Your task to perform on an android device: check data usage Image 0: 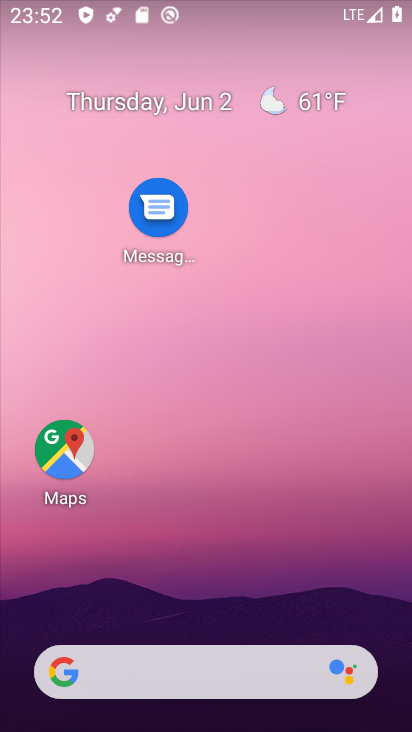
Step 0: drag from (201, 636) to (232, 10)
Your task to perform on an android device: check data usage Image 1: 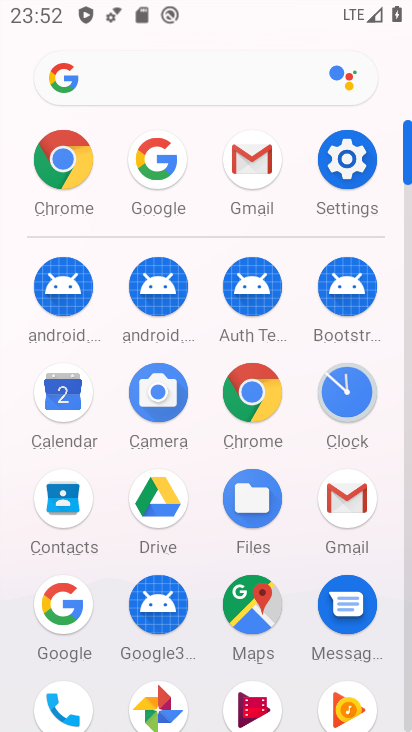
Step 1: click (336, 154)
Your task to perform on an android device: check data usage Image 2: 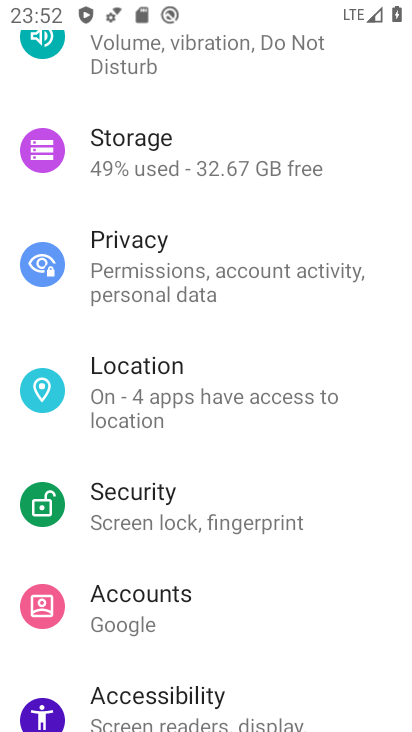
Step 2: drag from (259, 140) to (176, 692)
Your task to perform on an android device: check data usage Image 3: 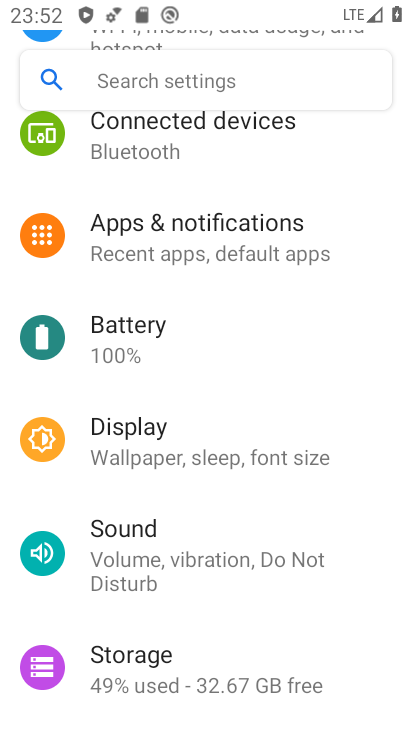
Step 3: drag from (200, 164) to (154, 635)
Your task to perform on an android device: check data usage Image 4: 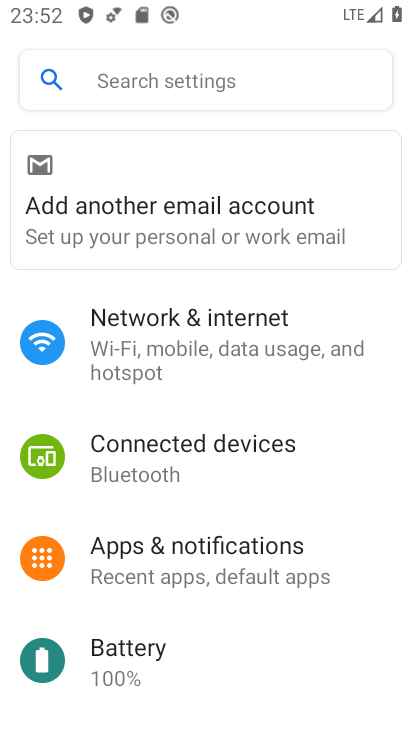
Step 4: click (180, 338)
Your task to perform on an android device: check data usage Image 5: 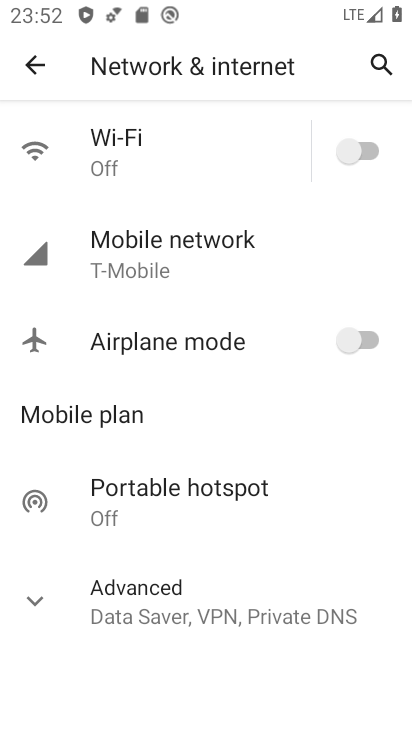
Step 5: click (194, 264)
Your task to perform on an android device: check data usage Image 6: 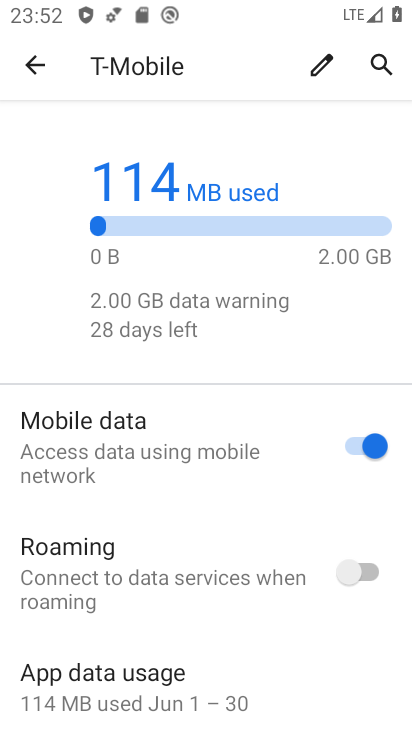
Step 6: drag from (163, 603) to (165, 128)
Your task to perform on an android device: check data usage Image 7: 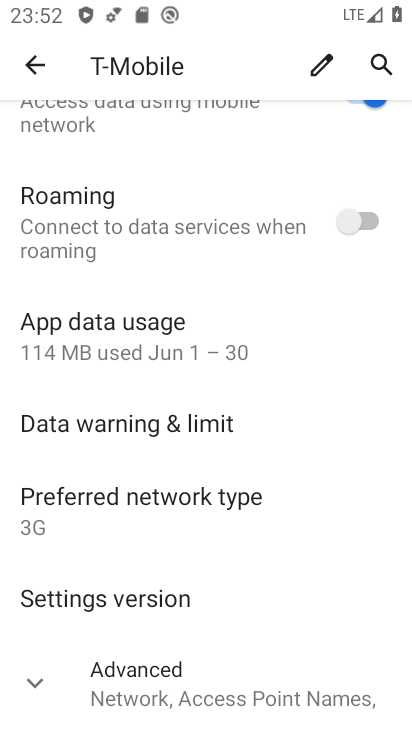
Step 7: click (210, 667)
Your task to perform on an android device: check data usage Image 8: 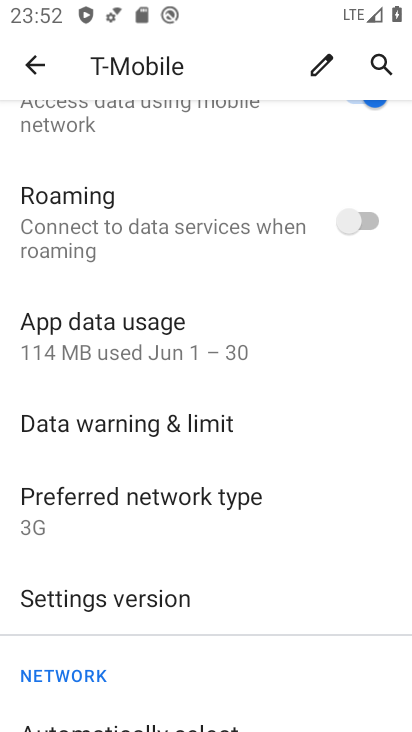
Step 8: task complete